Your task to perform on an android device: snooze an email in the gmail app Image 0: 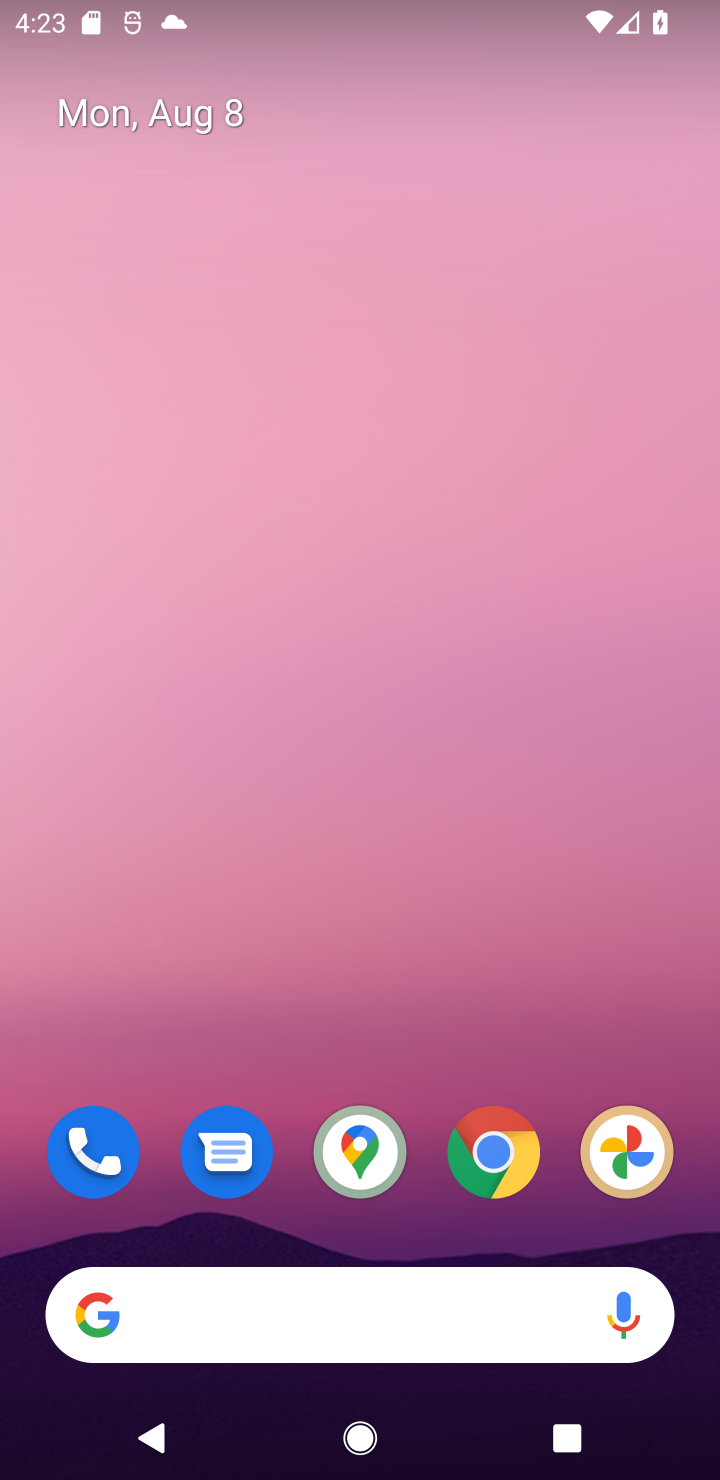
Step 0: drag from (378, 1231) to (510, 217)
Your task to perform on an android device: snooze an email in the gmail app Image 1: 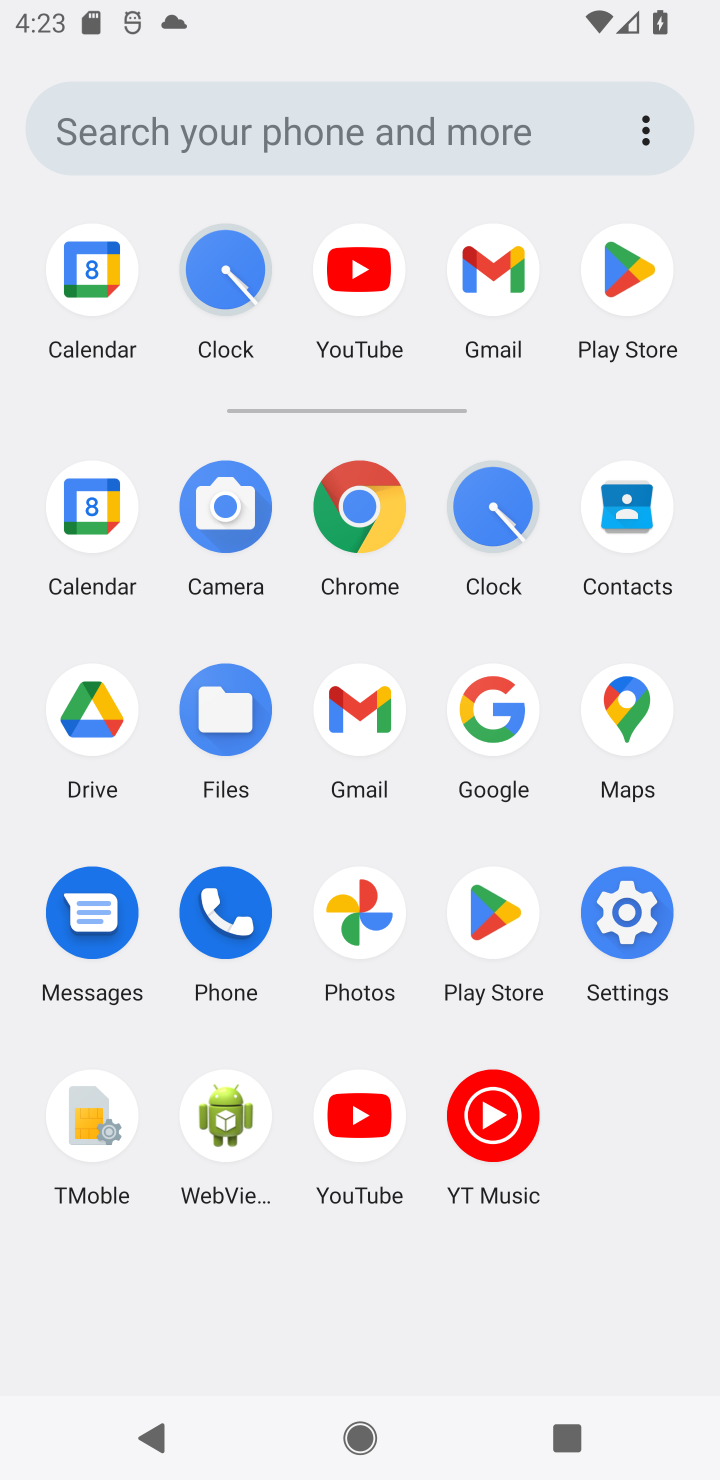
Step 1: click (348, 704)
Your task to perform on an android device: snooze an email in the gmail app Image 2: 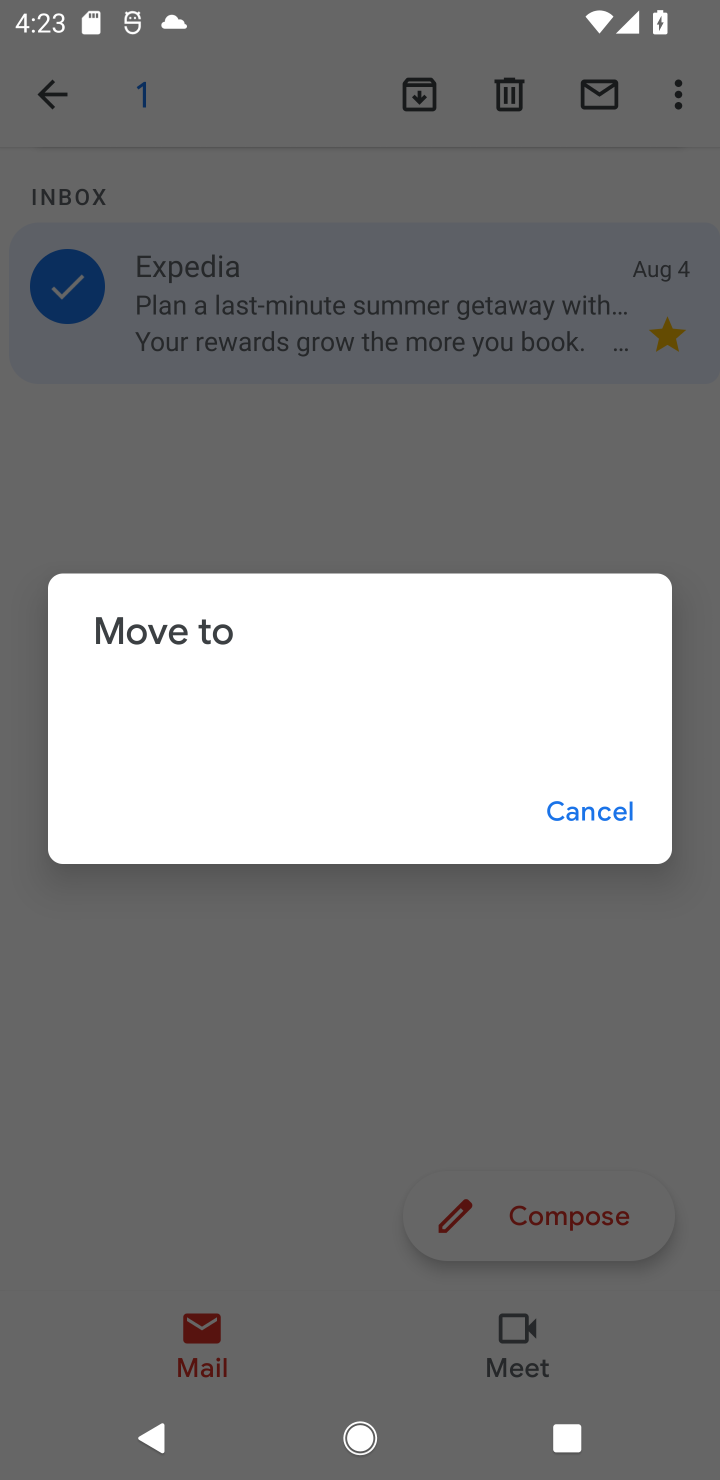
Step 2: click (566, 794)
Your task to perform on an android device: snooze an email in the gmail app Image 3: 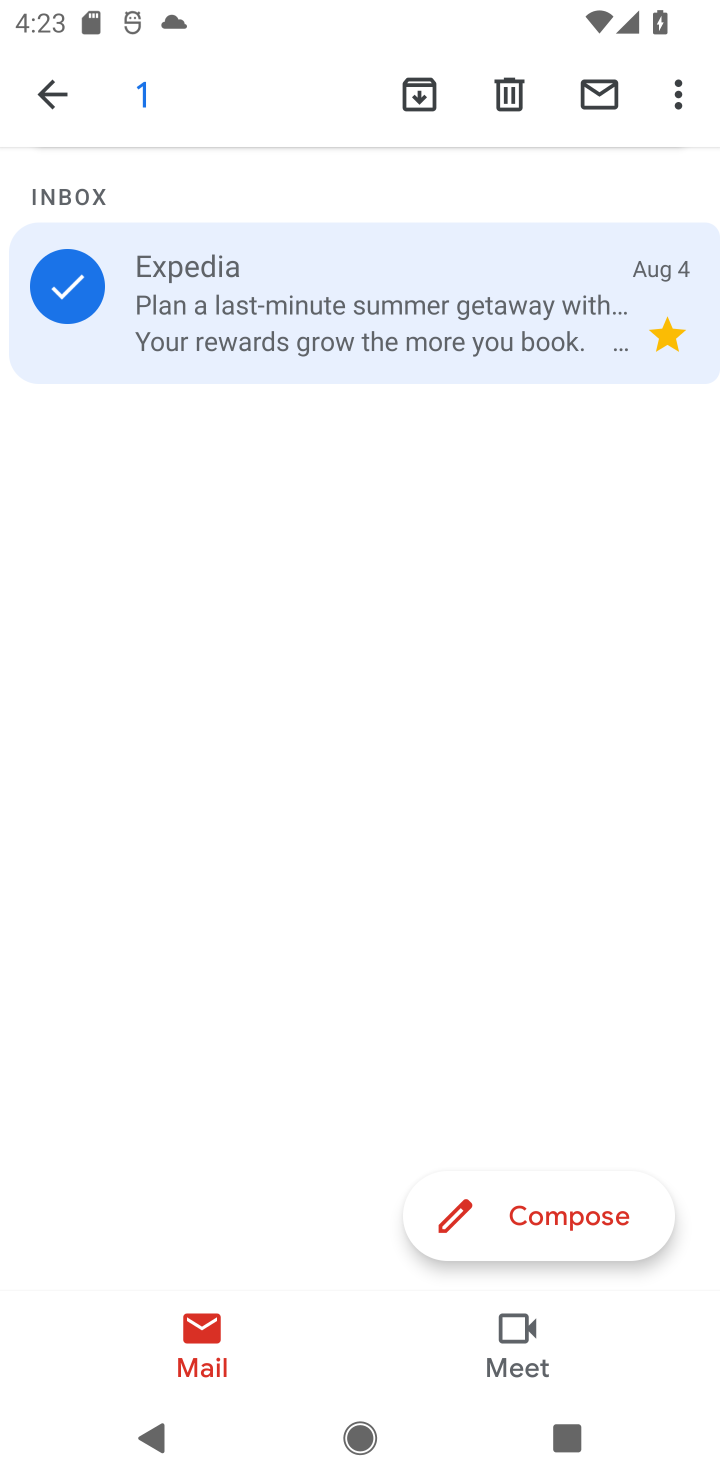
Step 3: click (681, 81)
Your task to perform on an android device: snooze an email in the gmail app Image 4: 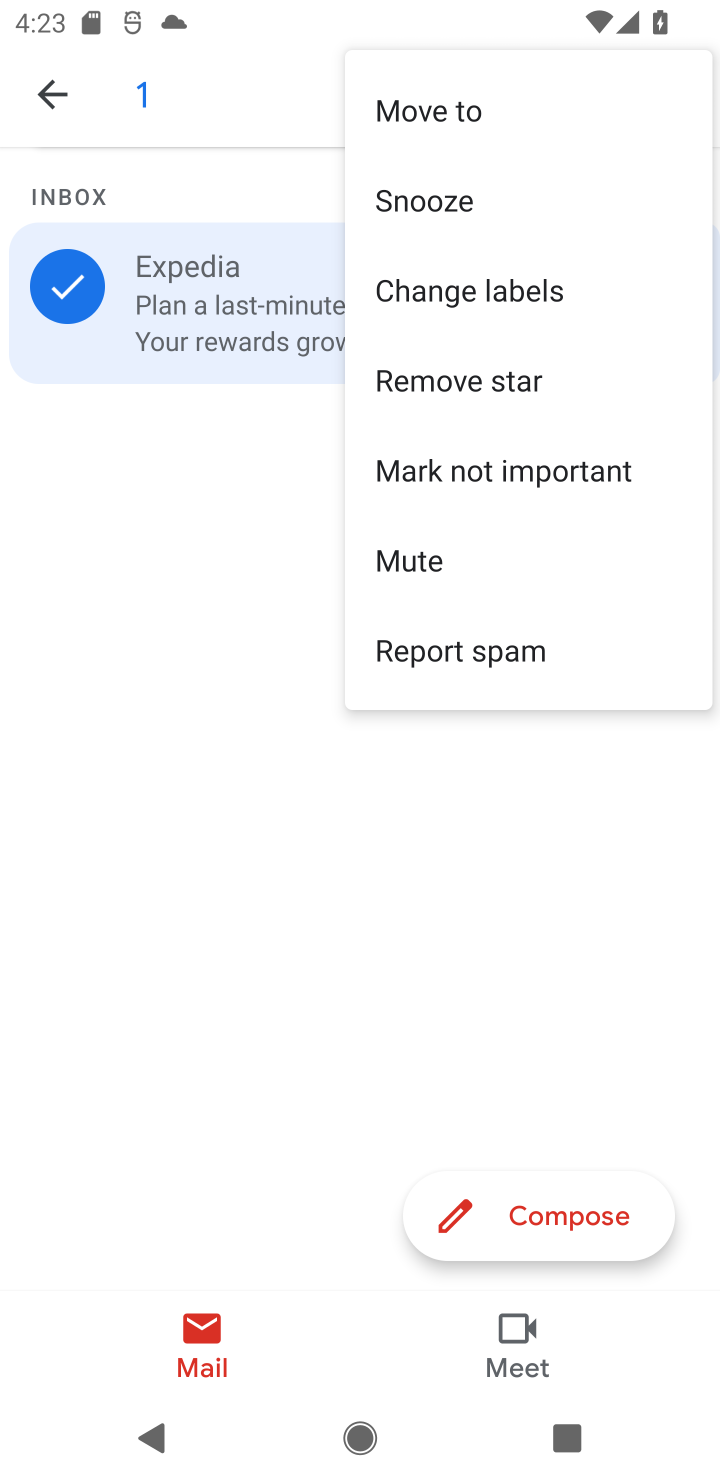
Step 4: click (440, 193)
Your task to perform on an android device: snooze an email in the gmail app Image 5: 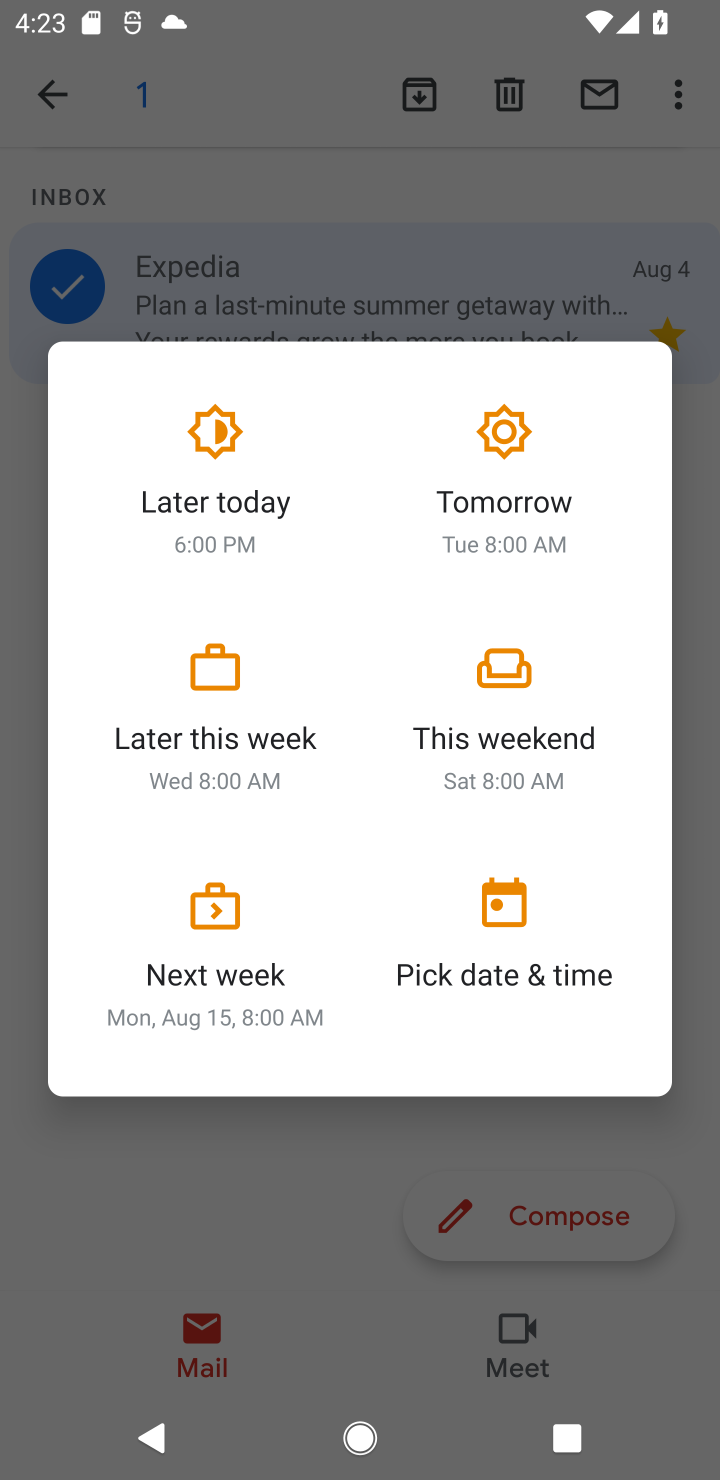
Step 5: click (214, 459)
Your task to perform on an android device: snooze an email in the gmail app Image 6: 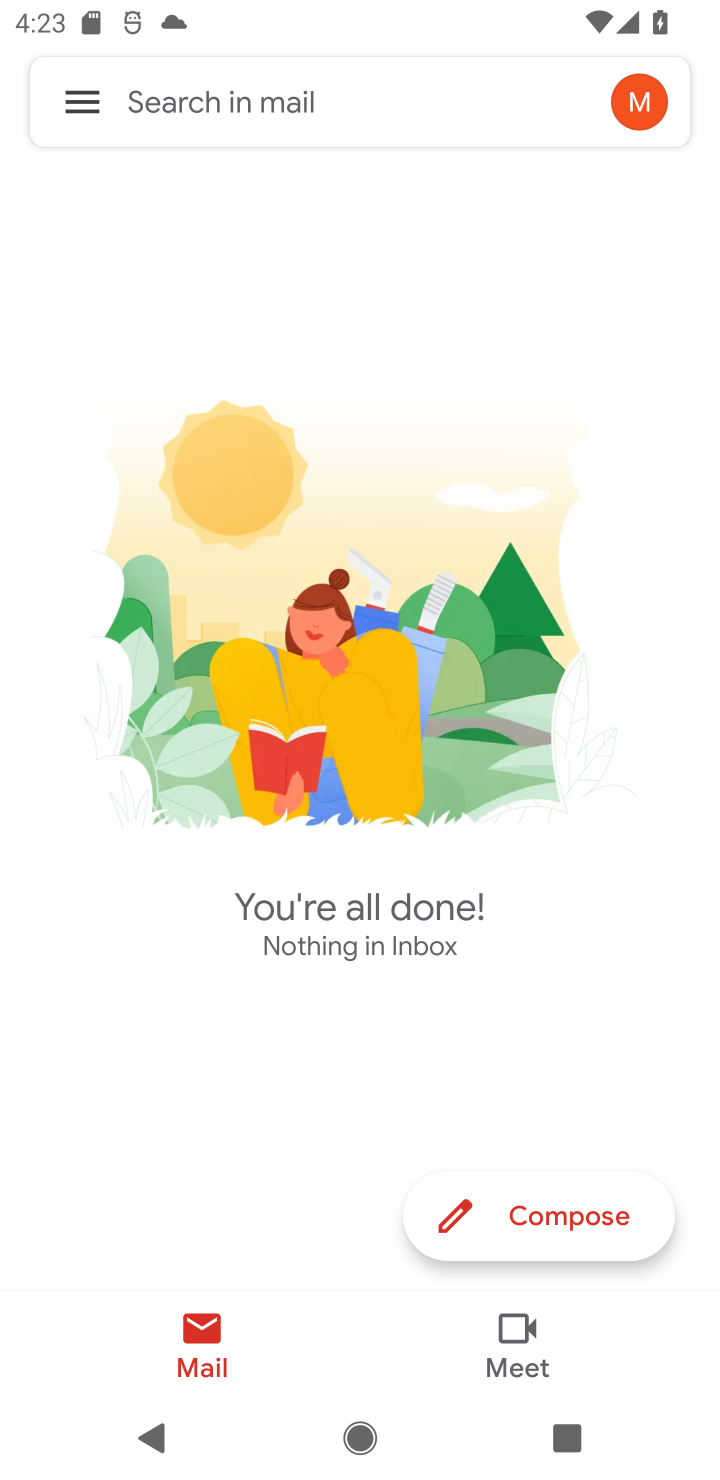
Step 6: click (83, 101)
Your task to perform on an android device: snooze an email in the gmail app Image 7: 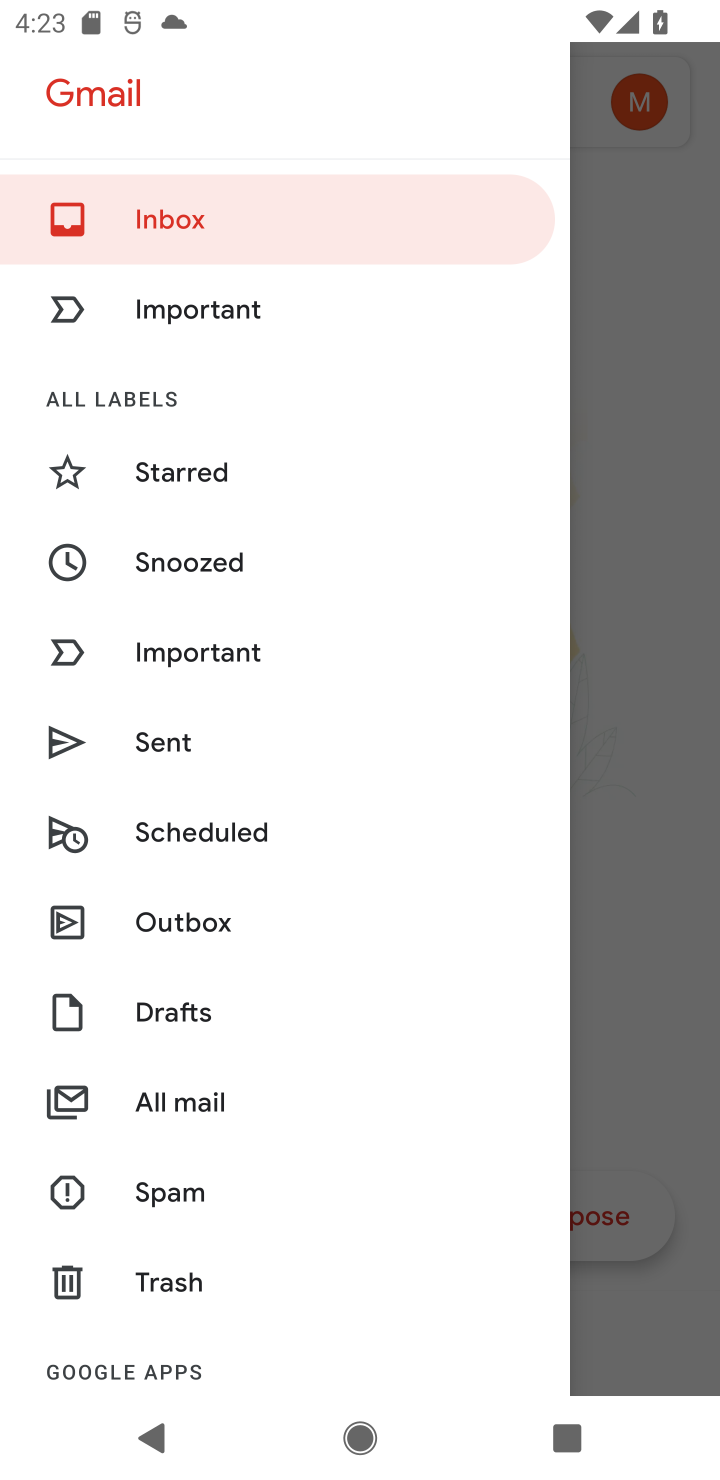
Step 7: click (189, 1085)
Your task to perform on an android device: snooze an email in the gmail app Image 8: 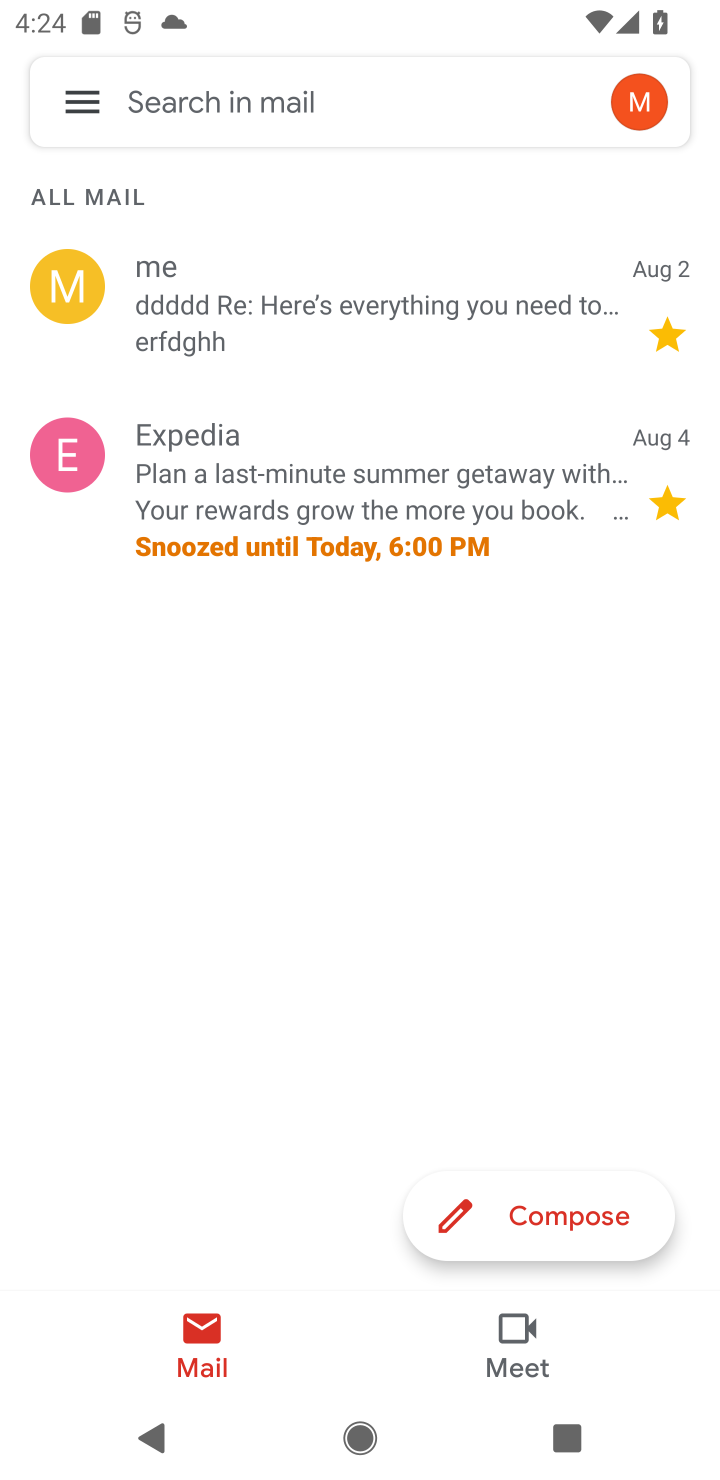
Step 8: task complete